Your task to perform on an android device: What's the weather going to be this weekend? Image 0: 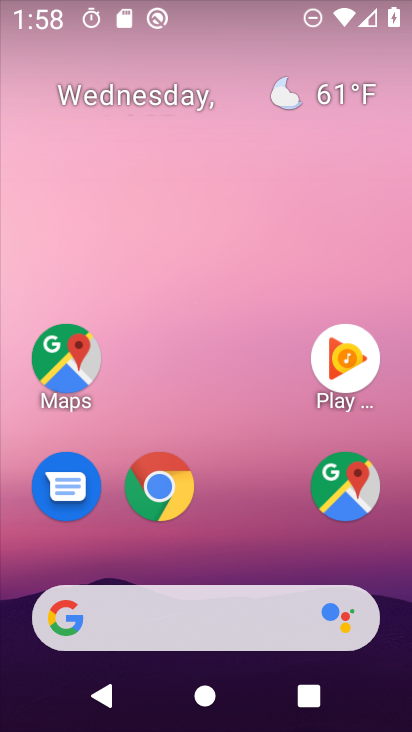
Step 0: drag from (296, 536) to (331, 132)
Your task to perform on an android device: What's the weather going to be this weekend? Image 1: 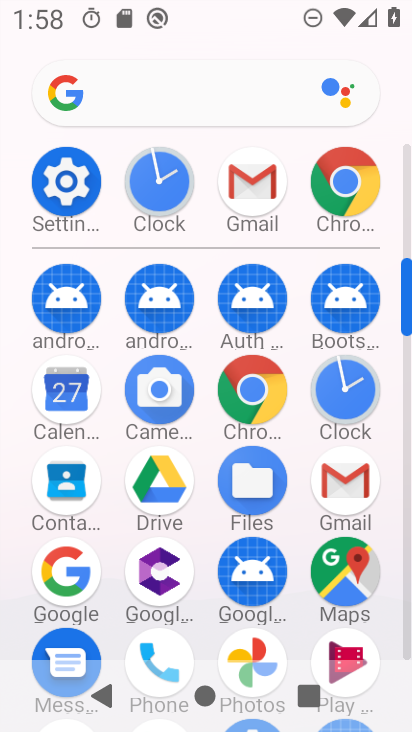
Step 1: click (238, 106)
Your task to perform on an android device: What's the weather going to be this weekend? Image 2: 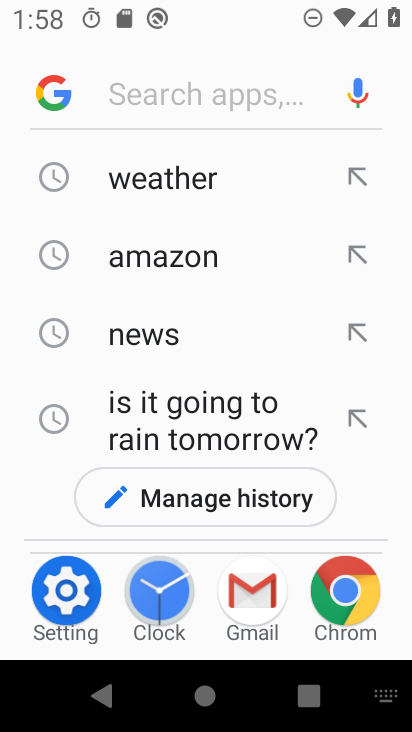
Step 2: click (206, 178)
Your task to perform on an android device: What's the weather going to be this weekend? Image 3: 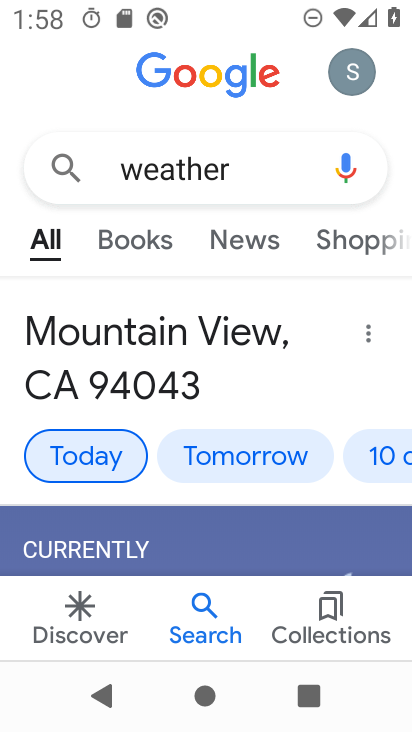
Step 3: click (379, 464)
Your task to perform on an android device: What's the weather going to be this weekend? Image 4: 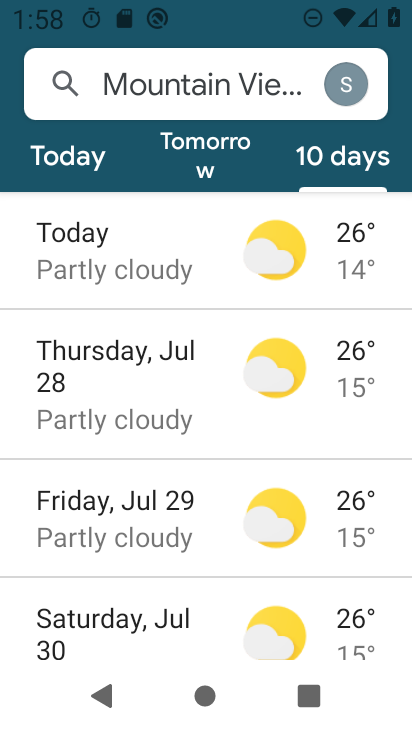
Step 4: drag from (203, 449) to (199, 214)
Your task to perform on an android device: What's the weather going to be this weekend? Image 5: 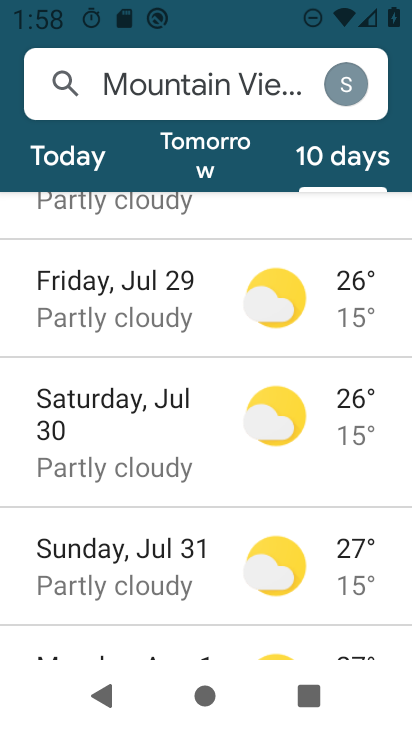
Step 5: click (215, 395)
Your task to perform on an android device: What's the weather going to be this weekend? Image 6: 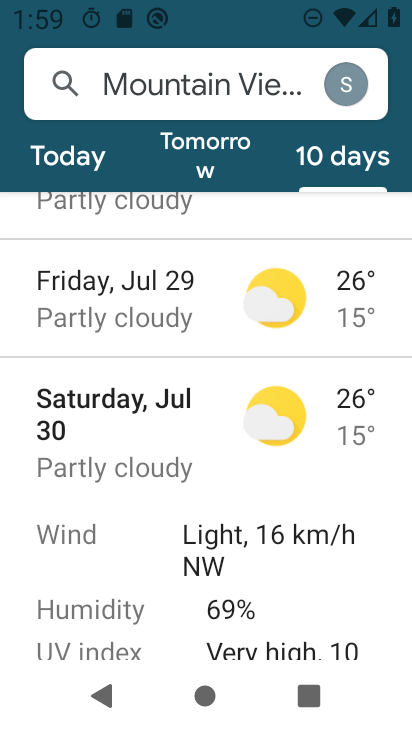
Step 6: task complete